Your task to perform on an android device: Go to battery settings Image 0: 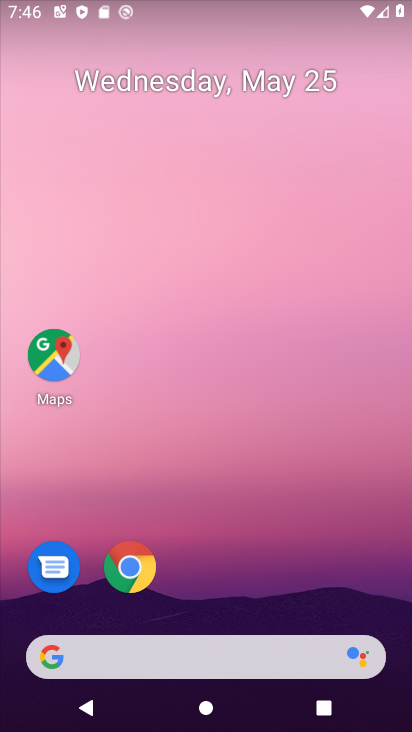
Step 0: drag from (257, 617) to (275, 94)
Your task to perform on an android device: Go to battery settings Image 1: 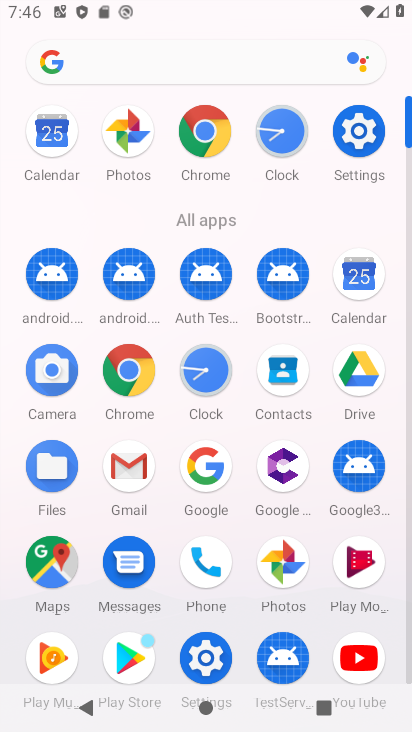
Step 1: click (355, 162)
Your task to perform on an android device: Go to battery settings Image 2: 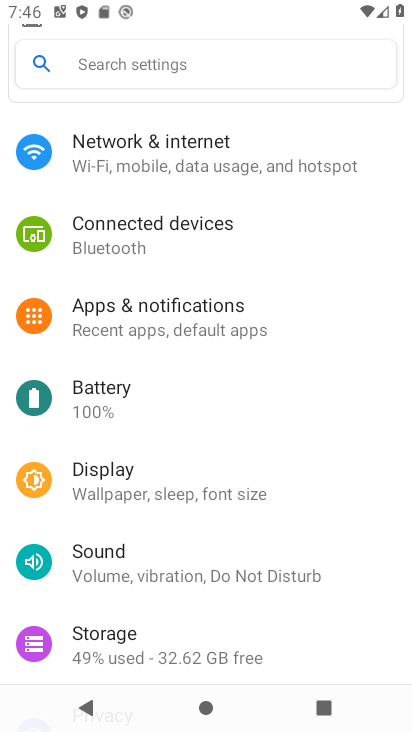
Step 2: click (161, 393)
Your task to perform on an android device: Go to battery settings Image 3: 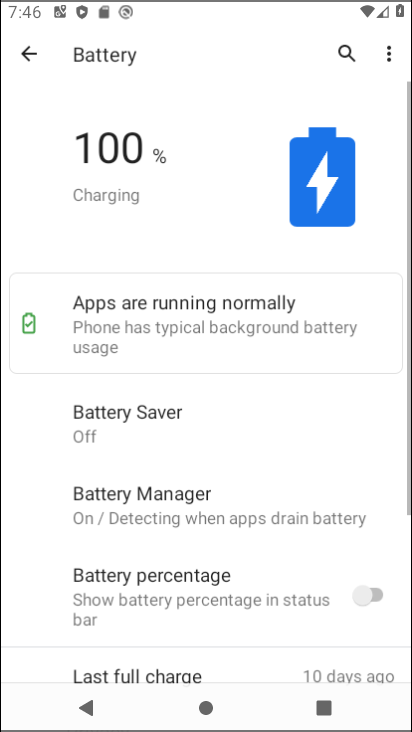
Step 3: task complete